Your task to perform on an android device: open a bookmark in the chrome app Image 0: 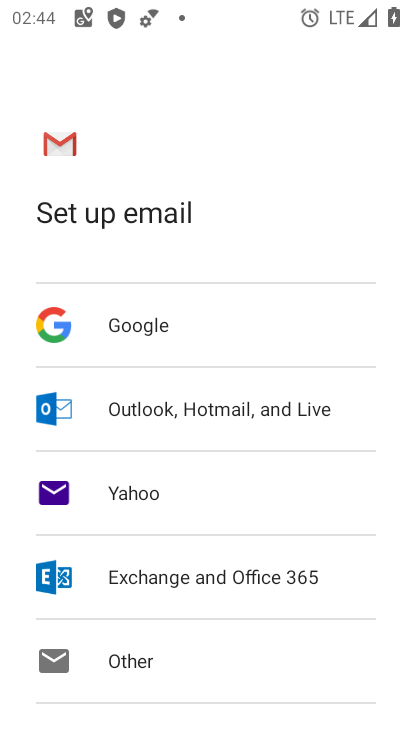
Step 0: press home button
Your task to perform on an android device: open a bookmark in the chrome app Image 1: 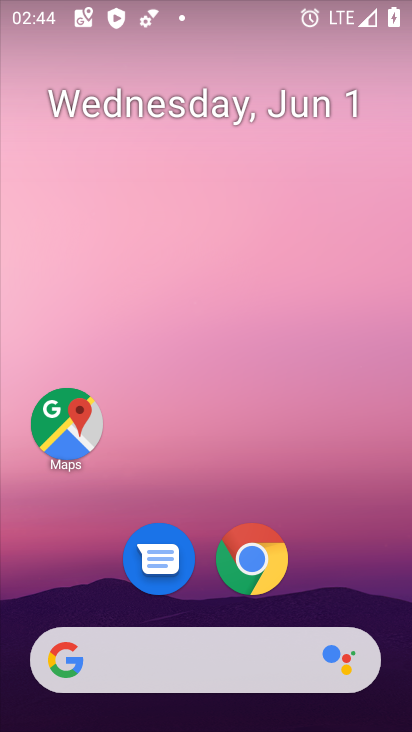
Step 1: click (257, 543)
Your task to perform on an android device: open a bookmark in the chrome app Image 2: 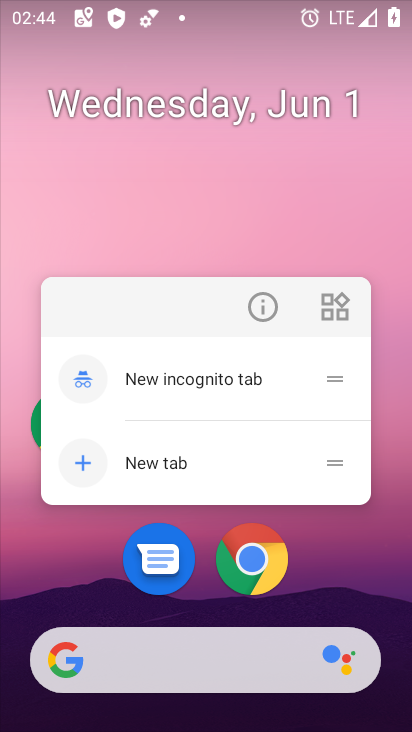
Step 2: click (258, 542)
Your task to perform on an android device: open a bookmark in the chrome app Image 3: 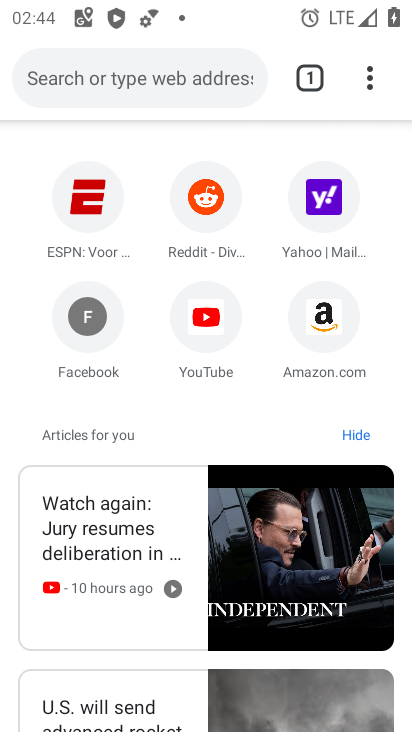
Step 3: task complete